Your task to perform on an android device: turn off smart reply in the gmail app Image 0: 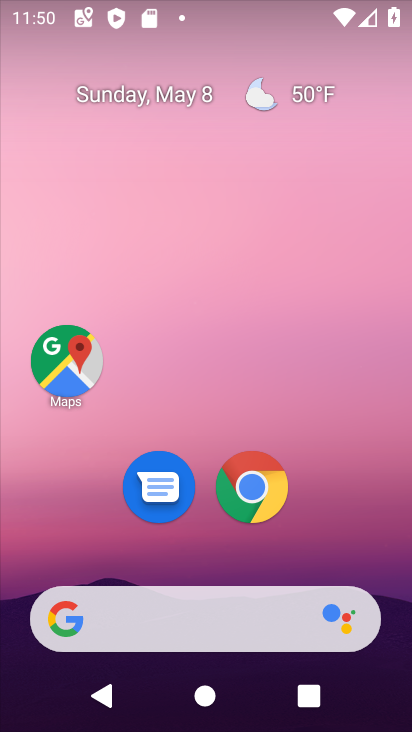
Step 0: drag from (314, 539) to (326, 105)
Your task to perform on an android device: turn off smart reply in the gmail app Image 1: 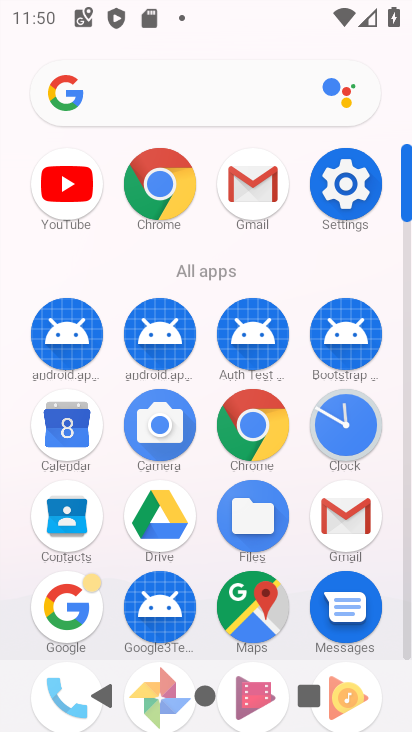
Step 1: click (261, 190)
Your task to perform on an android device: turn off smart reply in the gmail app Image 2: 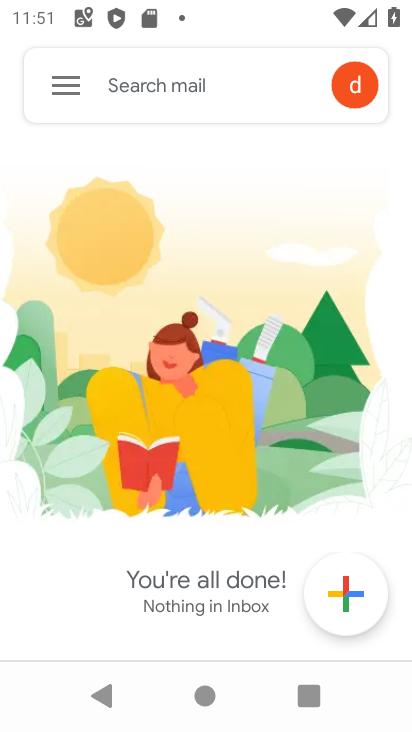
Step 2: click (58, 82)
Your task to perform on an android device: turn off smart reply in the gmail app Image 3: 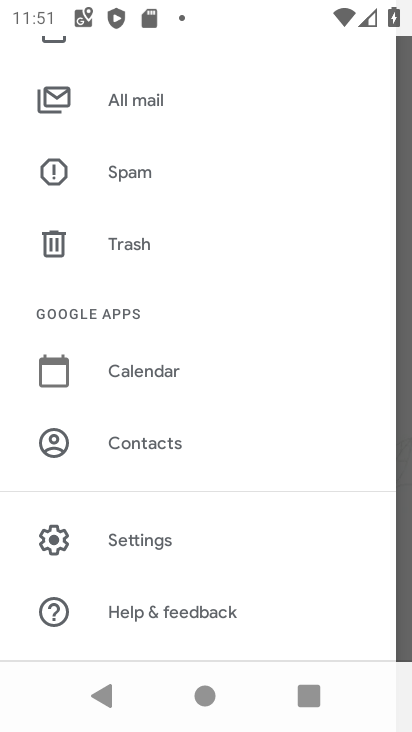
Step 3: click (177, 540)
Your task to perform on an android device: turn off smart reply in the gmail app Image 4: 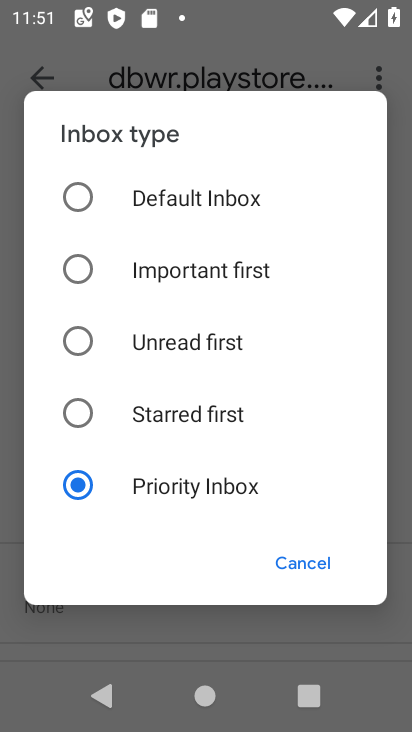
Step 4: press back button
Your task to perform on an android device: turn off smart reply in the gmail app Image 5: 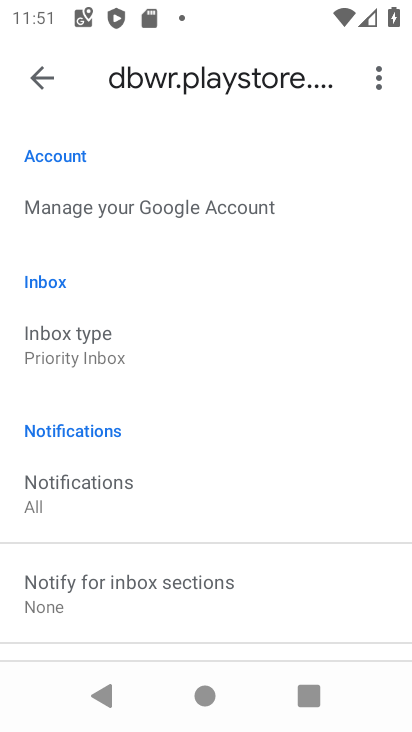
Step 5: drag from (75, 450) to (49, 303)
Your task to perform on an android device: turn off smart reply in the gmail app Image 6: 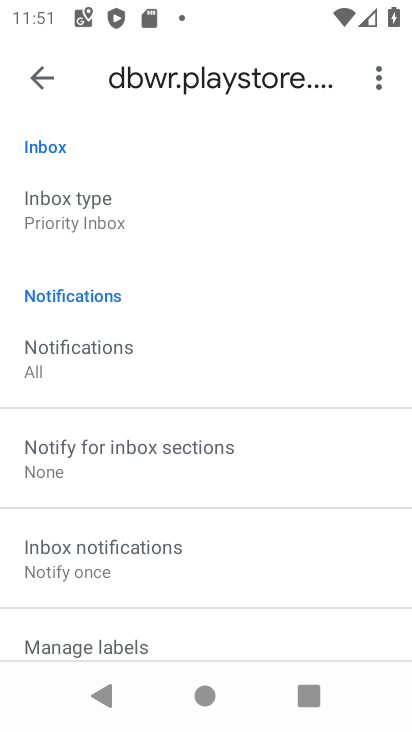
Step 6: drag from (126, 575) to (145, 147)
Your task to perform on an android device: turn off smart reply in the gmail app Image 7: 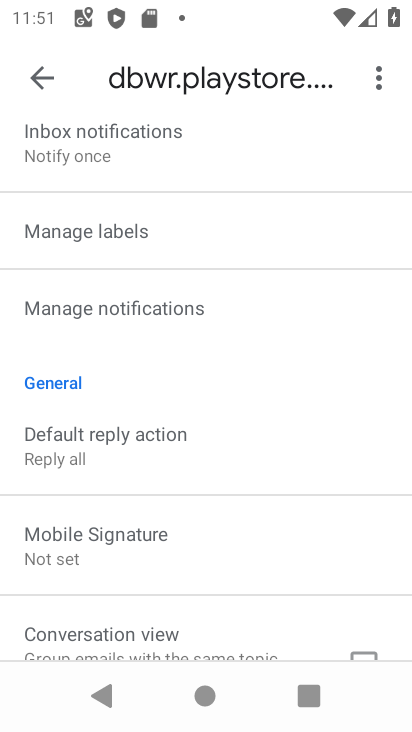
Step 7: drag from (170, 523) to (164, 343)
Your task to perform on an android device: turn off smart reply in the gmail app Image 8: 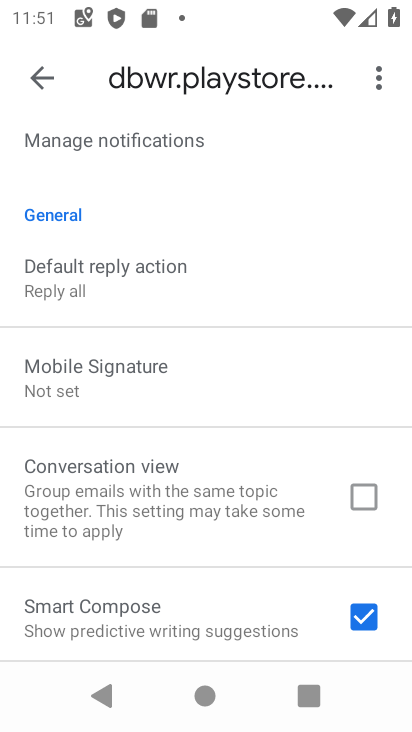
Step 8: drag from (237, 607) to (265, 341)
Your task to perform on an android device: turn off smart reply in the gmail app Image 9: 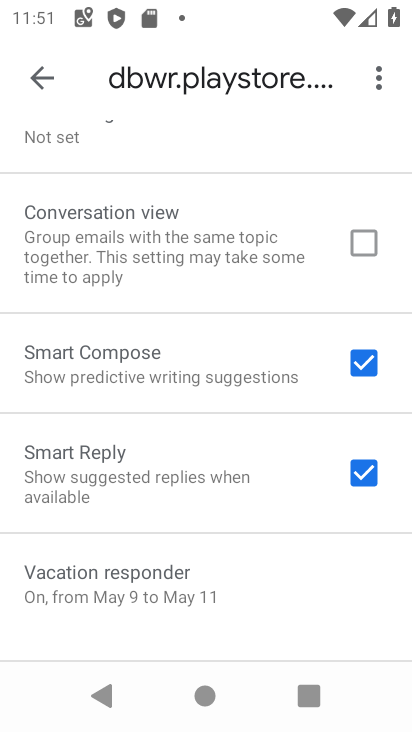
Step 9: click (368, 476)
Your task to perform on an android device: turn off smart reply in the gmail app Image 10: 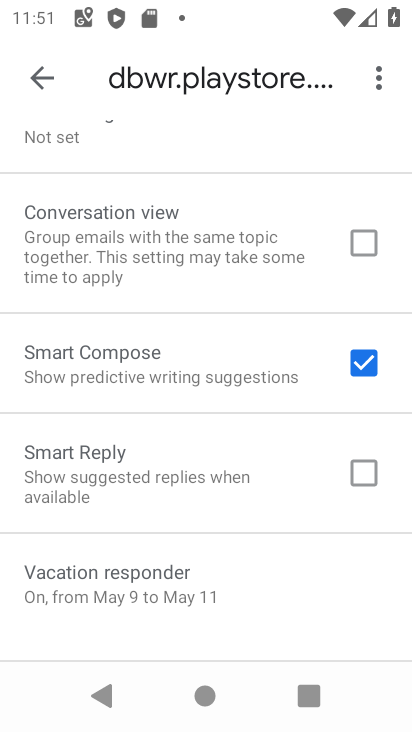
Step 10: task complete